Your task to perform on an android device: star an email in the gmail app Image 0: 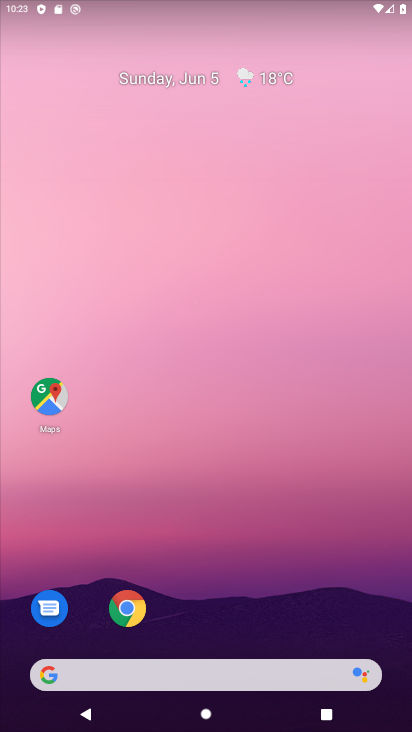
Step 0: drag from (241, 634) to (198, 68)
Your task to perform on an android device: star an email in the gmail app Image 1: 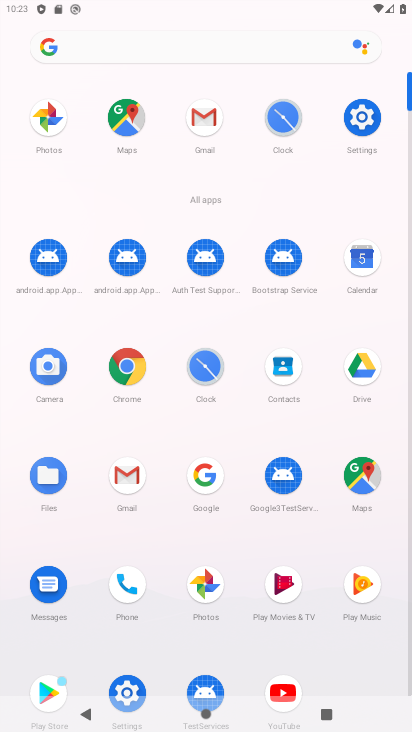
Step 1: click (123, 479)
Your task to perform on an android device: star an email in the gmail app Image 2: 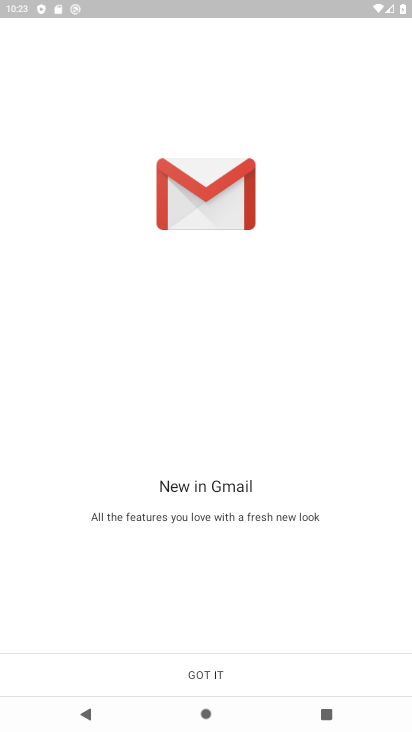
Step 2: click (195, 669)
Your task to perform on an android device: star an email in the gmail app Image 3: 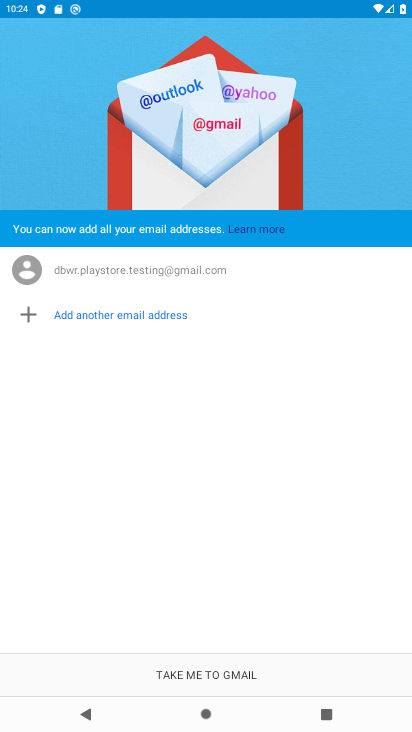
Step 3: click (191, 668)
Your task to perform on an android device: star an email in the gmail app Image 4: 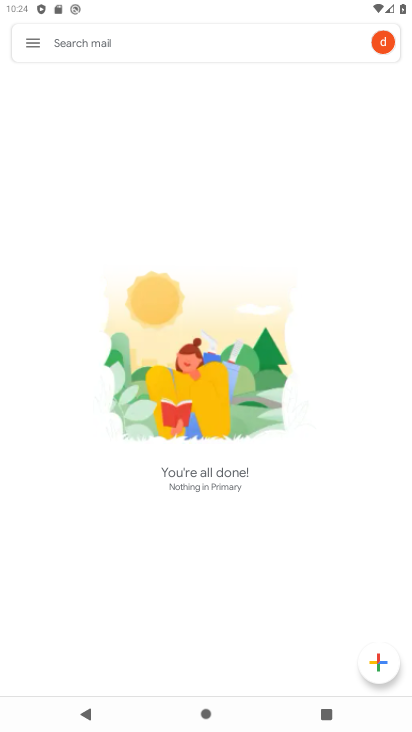
Step 4: click (33, 37)
Your task to perform on an android device: star an email in the gmail app Image 5: 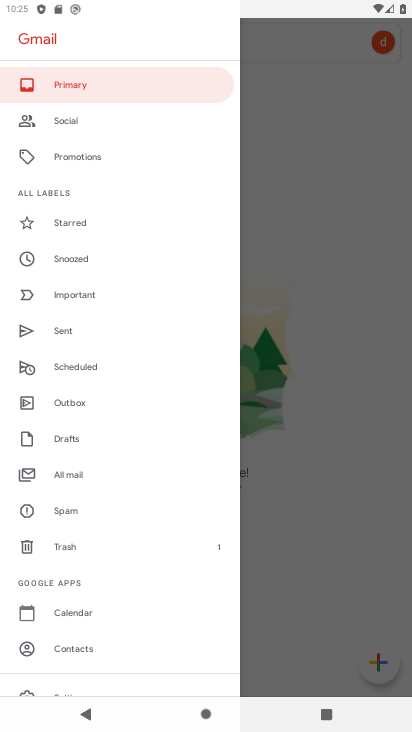
Step 5: drag from (110, 633) to (95, 267)
Your task to perform on an android device: star an email in the gmail app Image 6: 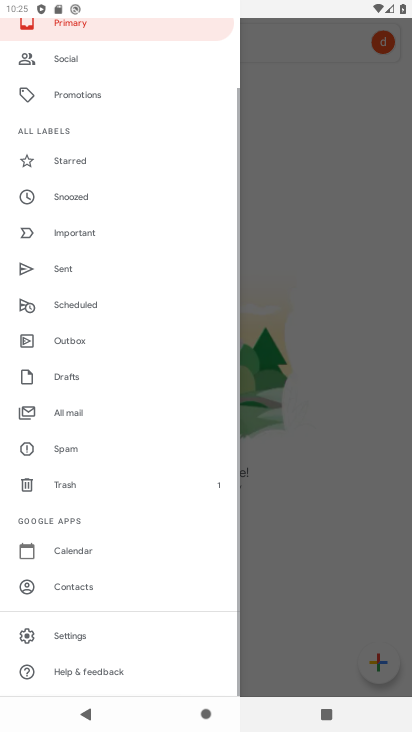
Step 6: click (79, 406)
Your task to perform on an android device: star an email in the gmail app Image 7: 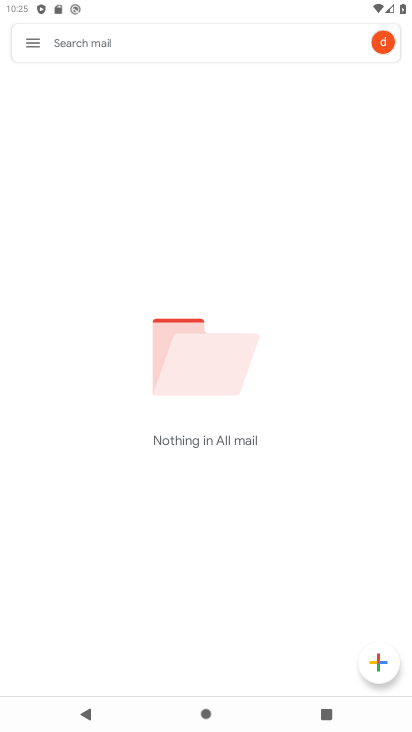
Step 7: task complete